Your task to perform on an android device: clear all cookies in the chrome app Image 0: 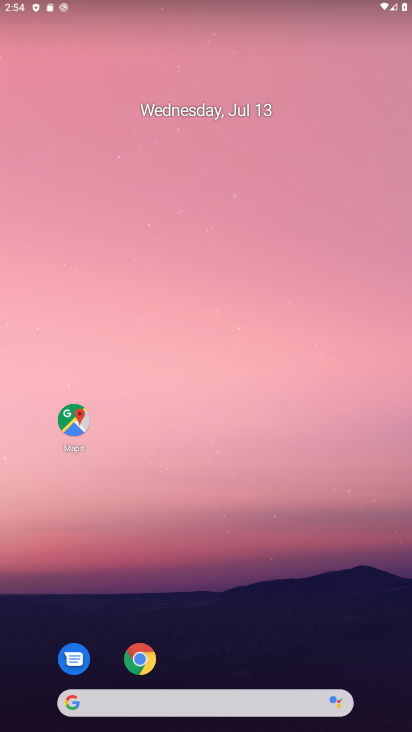
Step 0: drag from (204, 682) to (315, 166)
Your task to perform on an android device: clear all cookies in the chrome app Image 1: 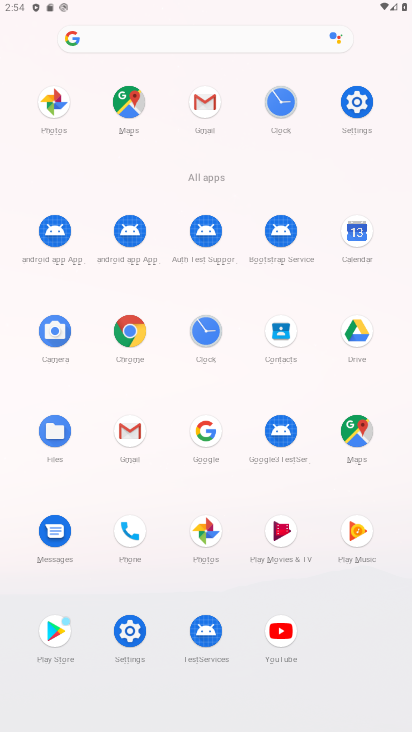
Step 1: click (125, 333)
Your task to perform on an android device: clear all cookies in the chrome app Image 2: 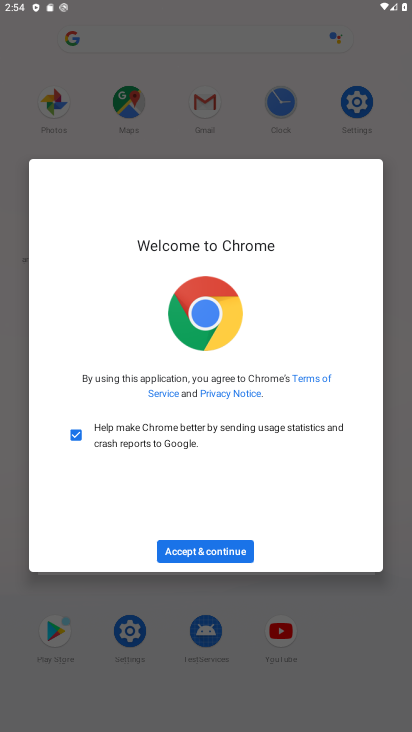
Step 2: click (236, 558)
Your task to perform on an android device: clear all cookies in the chrome app Image 3: 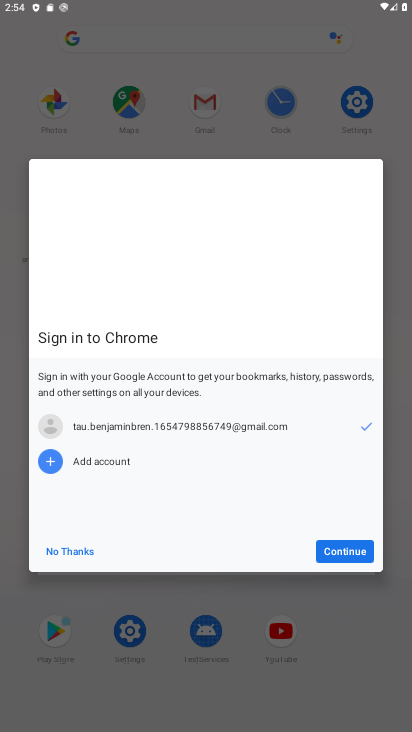
Step 3: click (356, 550)
Your task to perform on an android device: clear all cookies in the chrome app Image 4: 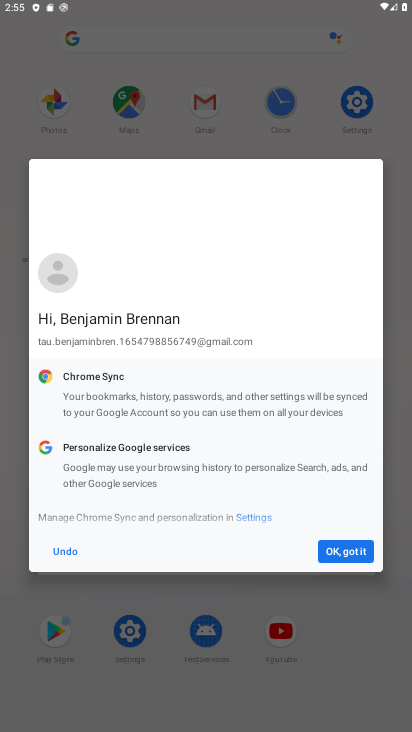
Step 4: click (356, 550)
Your task to perform on an android device: clear all cookies in the chrome app Image 5: 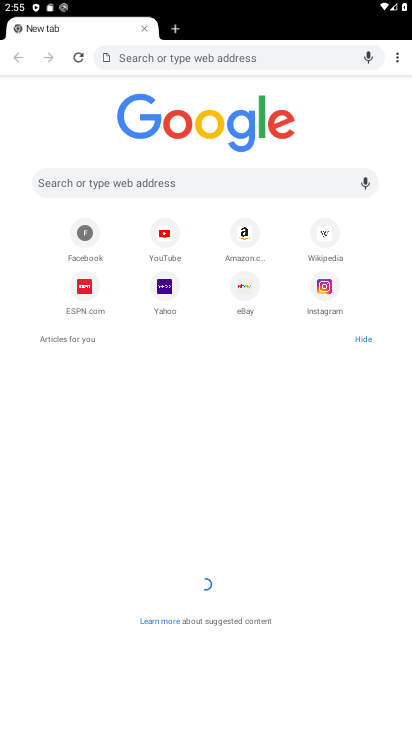
Step 5: drag from (396, 55) to (307, 257)
Your task to perform on an android device: clear all cookies in the chrome app Image 6: 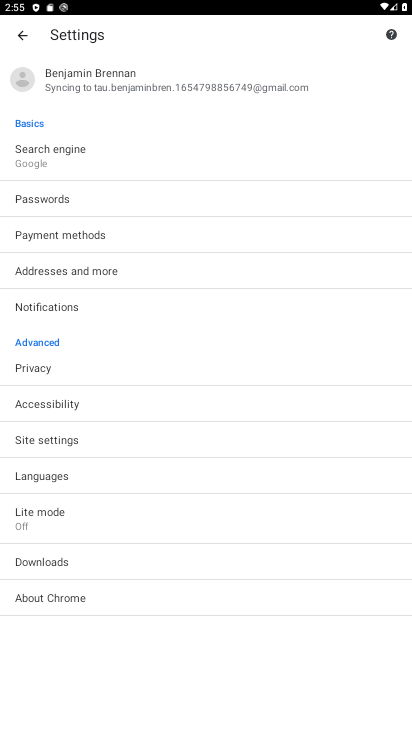
Step 6: click (78, 375)
Your task to perform on an android device: clear all cookies in the chrome app Image 7: 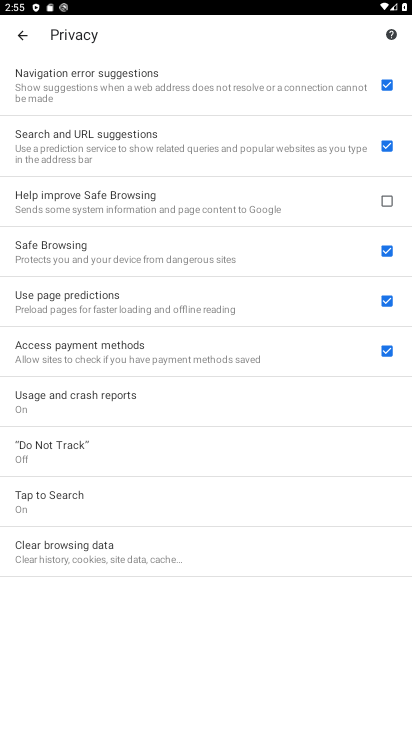
Step 7: click (122, 550)
Your task to perform on an android device: clear all cookies in the chrome app Image 8: 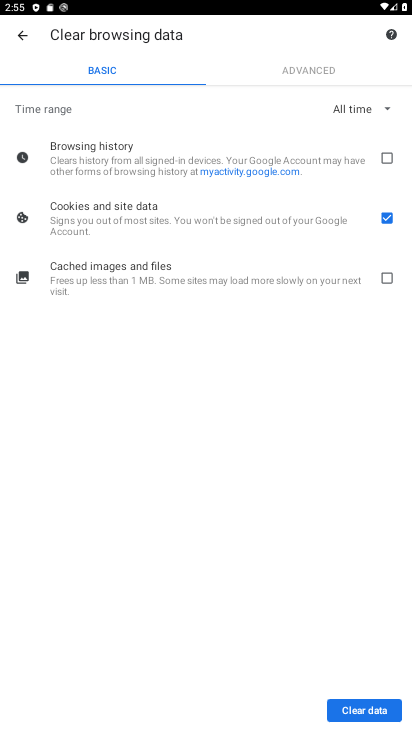
Step 8: click (387, 710)
Your task to perform on an android device: clear all cookies in the chrome app Image 9: 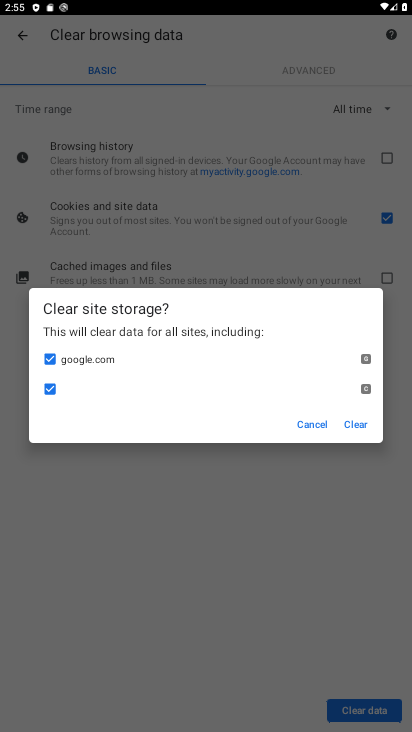
Step 9: click (352, 420)
Your task to perform on an android device: clear all cookies in the chrome app Image 10: 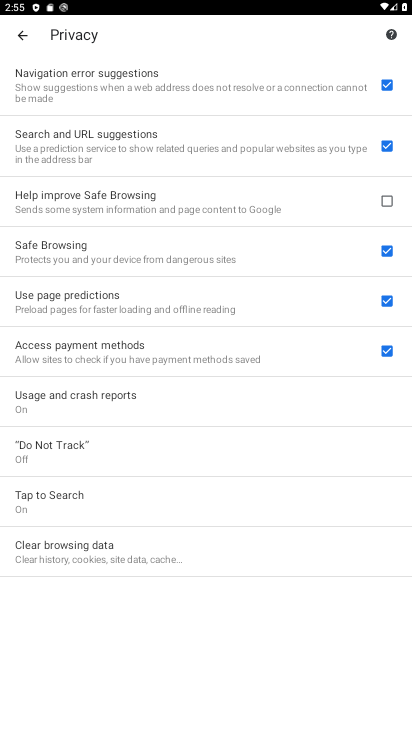
Step 10: task complete